Your task to perform on an android device: Open settings Image 0: 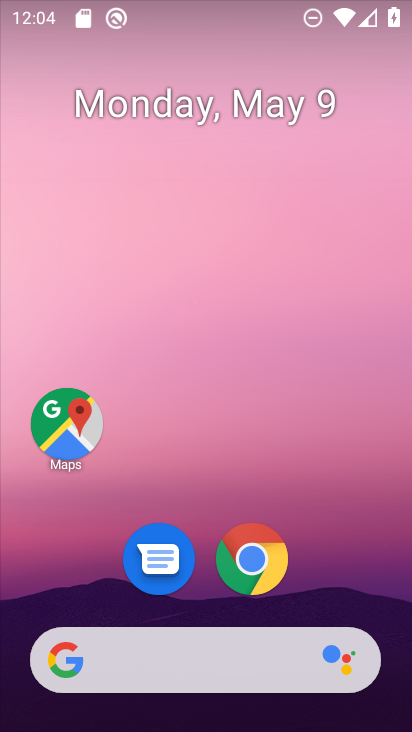
Step 0: press home button
Your task to perform on an android device: Open settings Image 1: 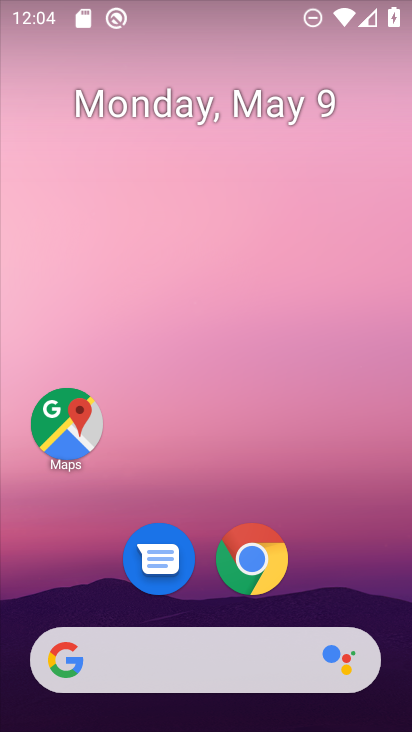
Step 1: drag from (366, 539) to (262, 67)
Your task to perform on an android device: Open settings Image 2: 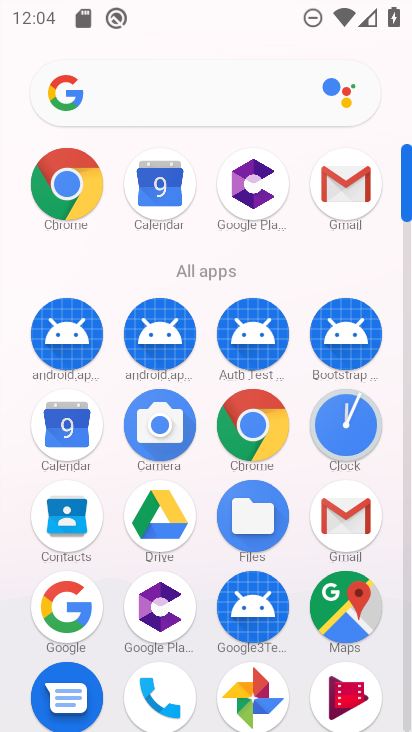
Step 2: click (407, 721)
Your task to perform on an android device: Open settings Image 3: 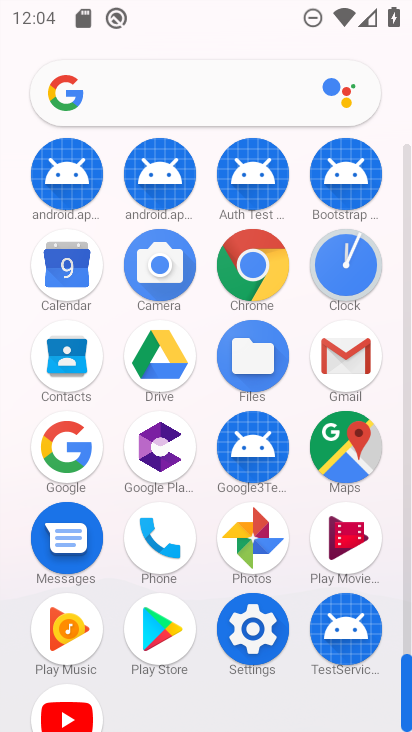
Step 3: click (264, 637)
Your task to perform on an android device: Open settings Image 4: 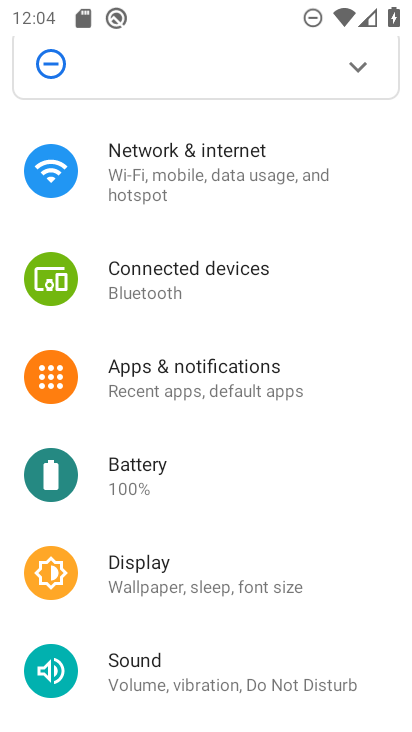
Step 4: task complete